Your task to perform on an android device: Go to notification settings Image 0: 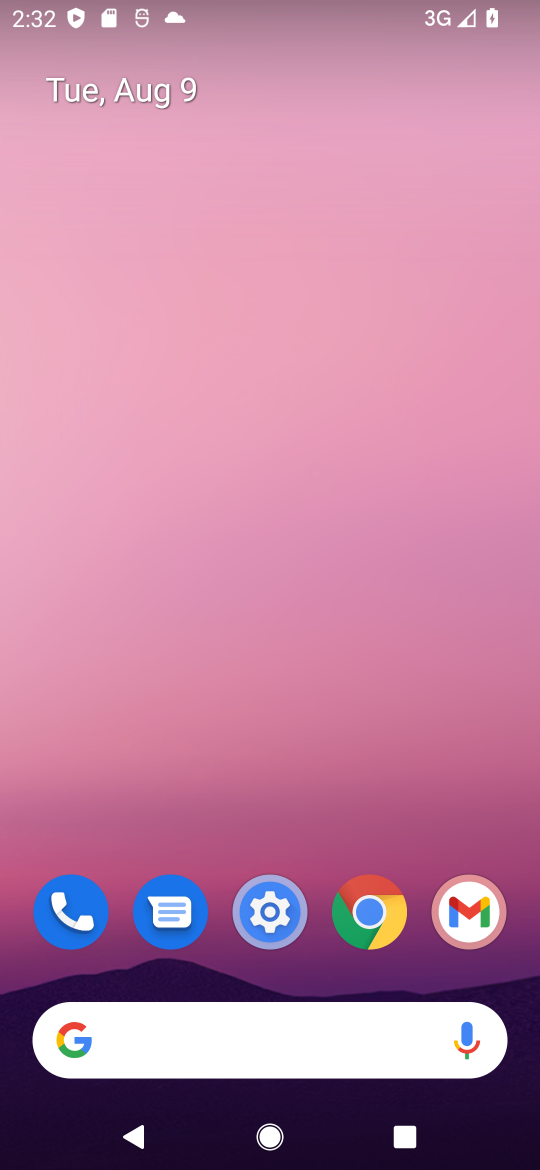
Step 0: click (268, 911)
Your task to perform on an android device: Go to notification settings Image 1: 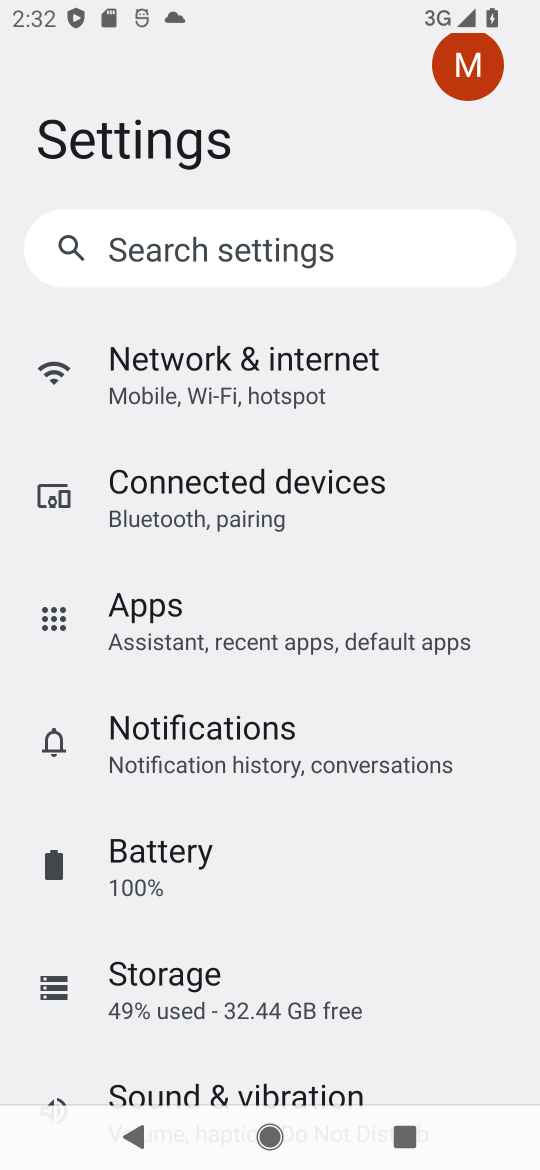
Step 1: click (203, 734)
Your task to perform on an android device: Go to notification settings Image 2: 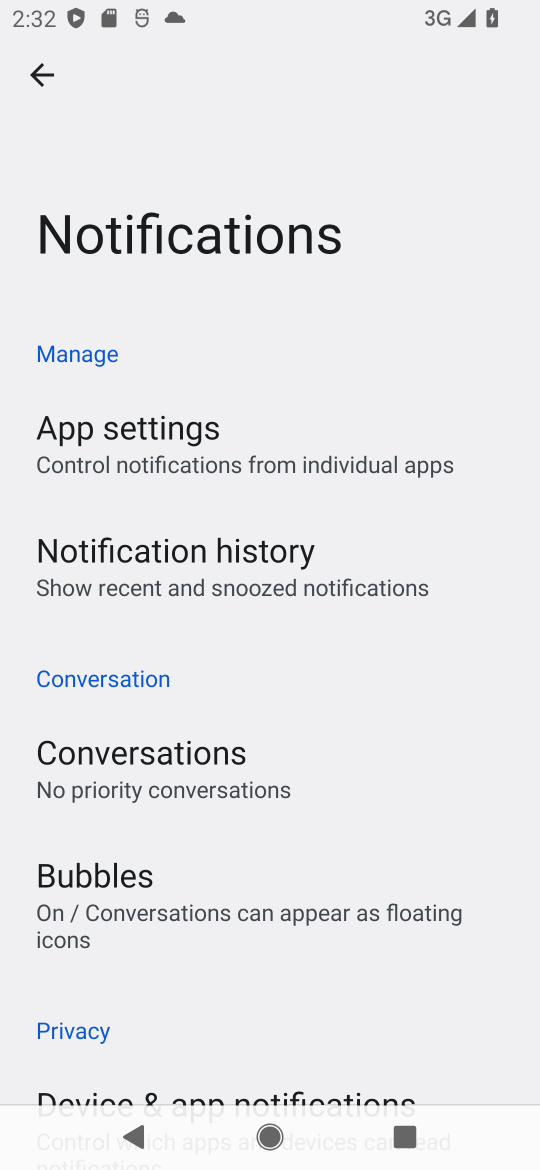
Step 2: drag from (329, 834) to (316, 247)
Your task to perform on an android device: Go to notification settings Image 3: 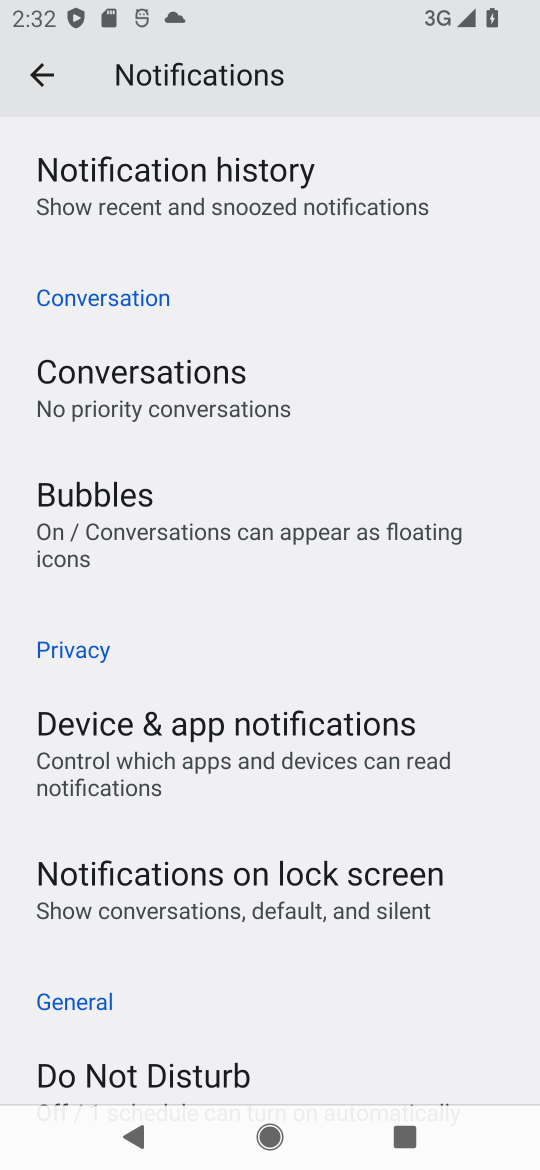
Step 3: click (257, 718)
Your task to perform on an android device: Go to notification settings Image 4: 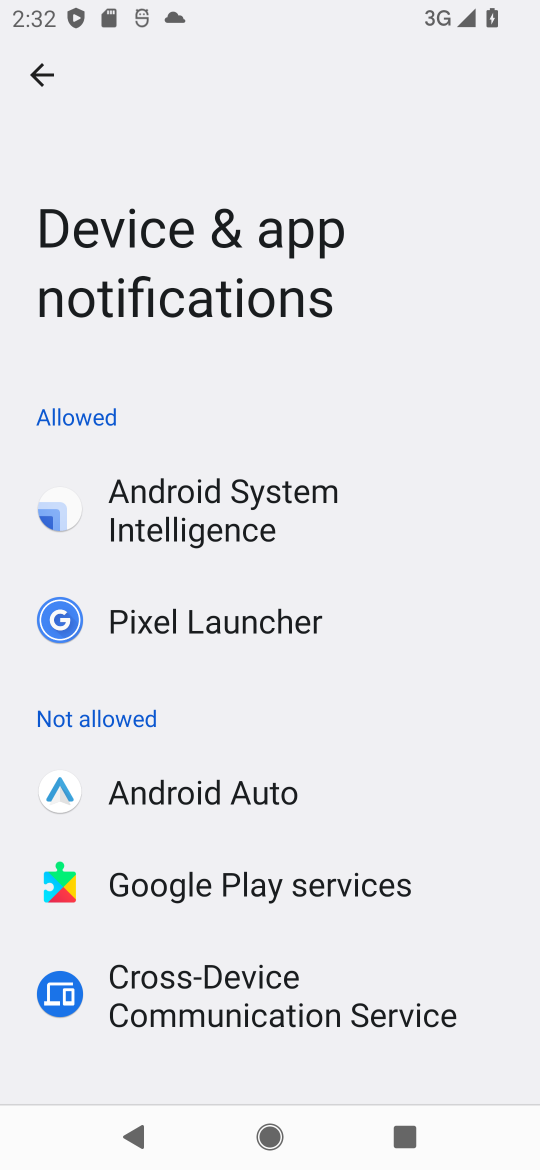
Step 4: task complete